Your task to perform on an android device: Add "alienware aurora" to the cart on amazon, then select checkout. Image 0: 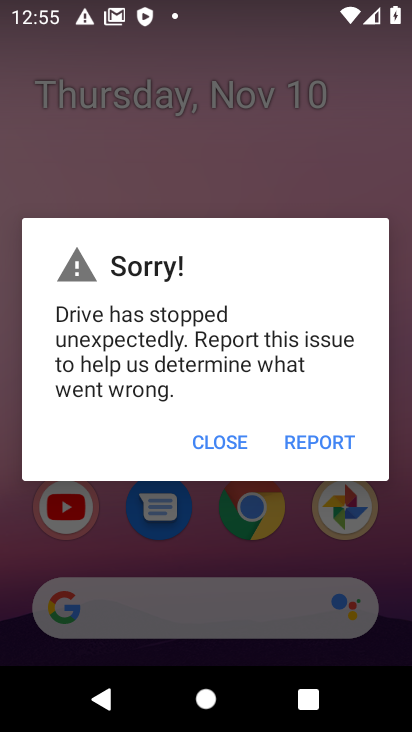
Step 0: click (237, 435)
Your task to perform on an android device: Add "alienware aurora" to the cart on amazon, then select checkout. Image 1: 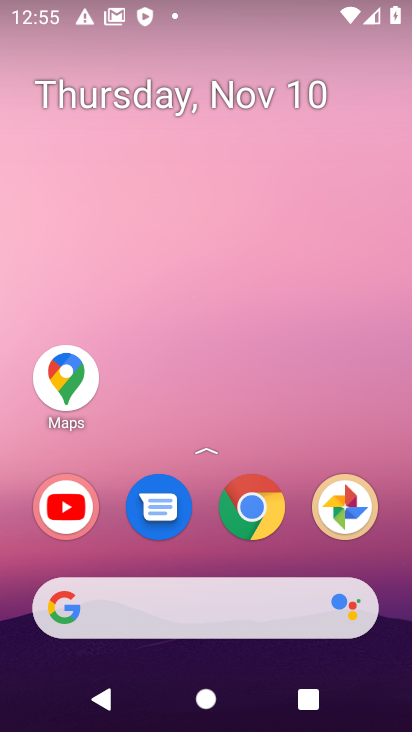
Step 1: click (254, 511)
Your task to perform on an android device: Add "alienware aurora" to the cart on amazon, then select checkout. Image 2: 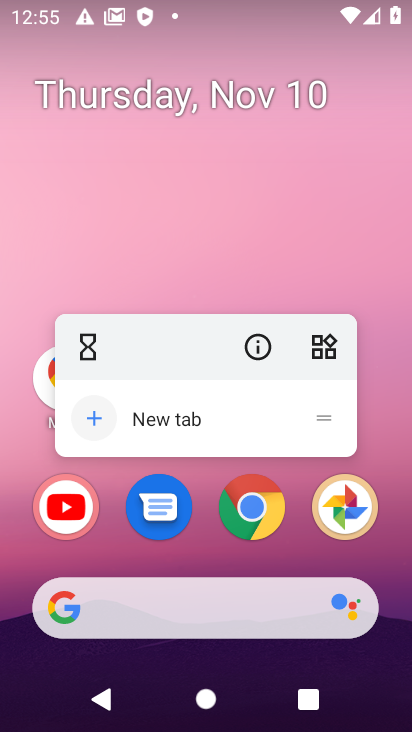
Step 2: click (254, 511)
Your task to perform on an android device: Add "alienware aurora" to the cart on amazon, then select checkout. Image 3: 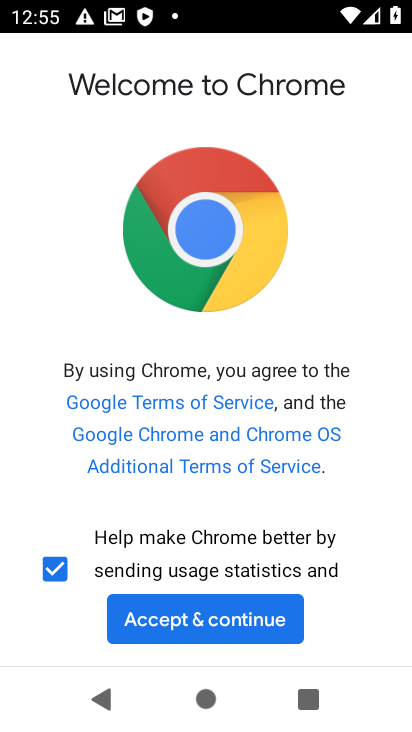
Step 3: click (233, 602)
Your task to perform on an android device: Add "alienware aurora" to the cart on amazon, then select checkout. Image 4: 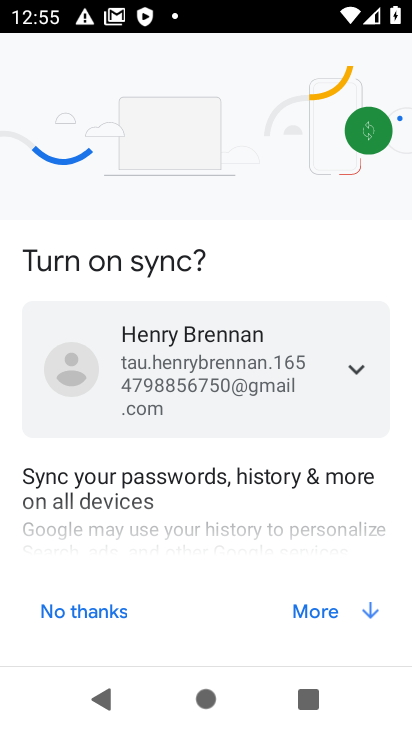
Step 4: click (351, 609)
Your task to perform on an android device: Add "alienware aurora" to the cart on amazon, then select checkout. Image 5: 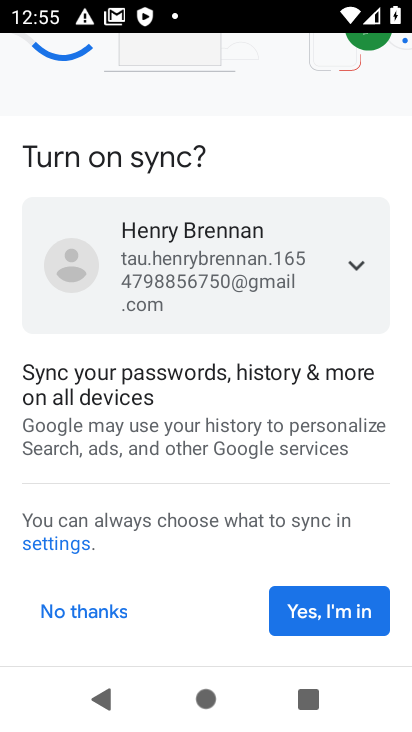
Step 5: click (351, 609)
Your task to perform on an android device: Add "alienware aurora" to the cart on amazon, then select checkout. Image 6: 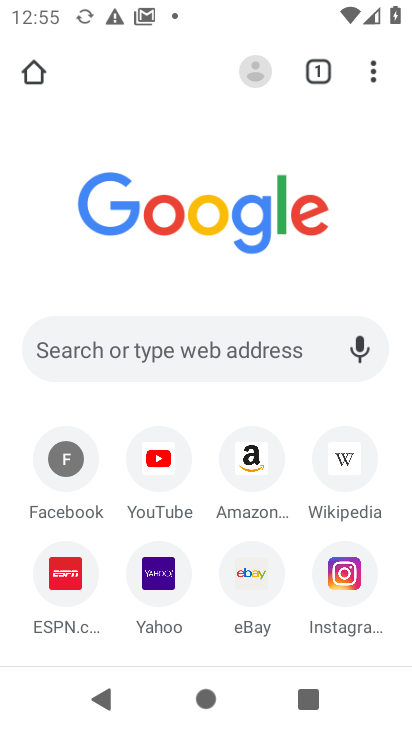
Step 6: click (134, 324)
Your task to perform on an android device: Add "alienware aurora" to the cart on amazon, then select checkout. Image 7: 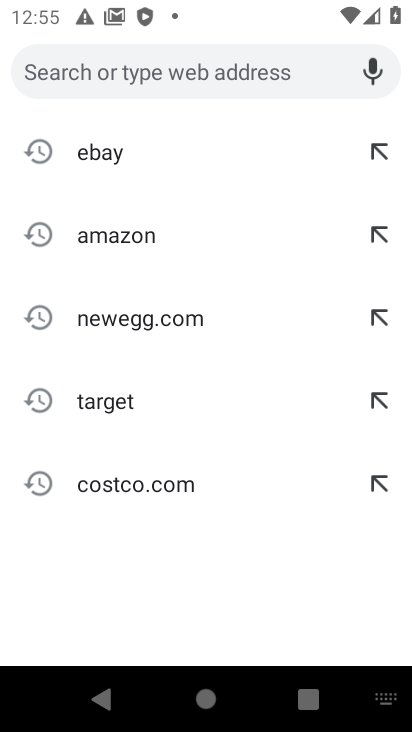
Step 7: click (74, 232)
Your task to perform on an android device: Add "alienware aurora" to the cart on amazon, then select checkout. Image 8: 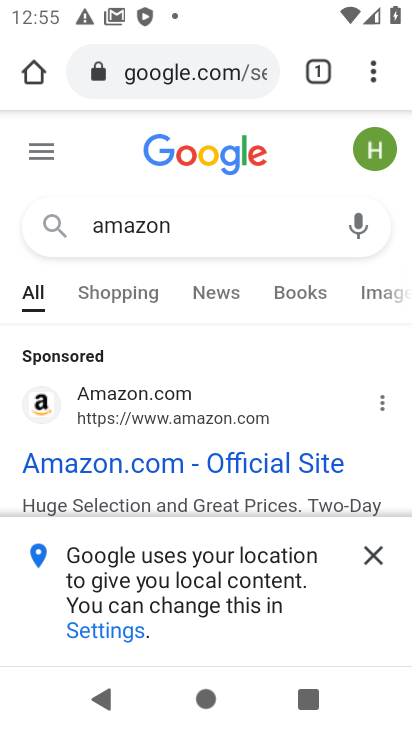
Step 8: click (103, 457)
Your task to perform on an android device: Add "alienware aurora" to the cart on amazon, then select checkout. Image 9: 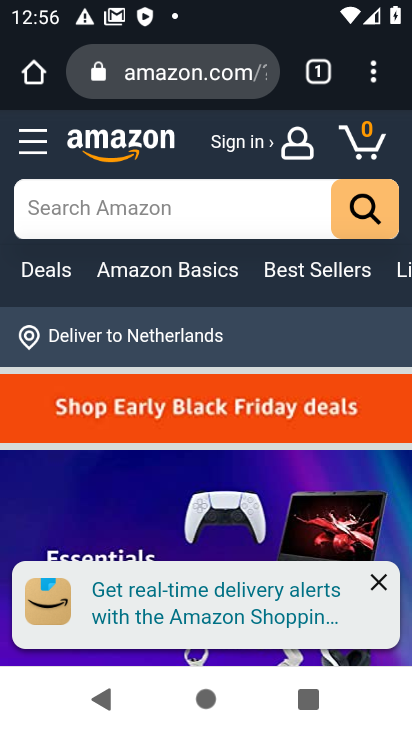
Step 9: click (149, 217)
Your task to perform on an android device: Add "alienware aurora" to the cart on amazon, then select checkout. Image 10: 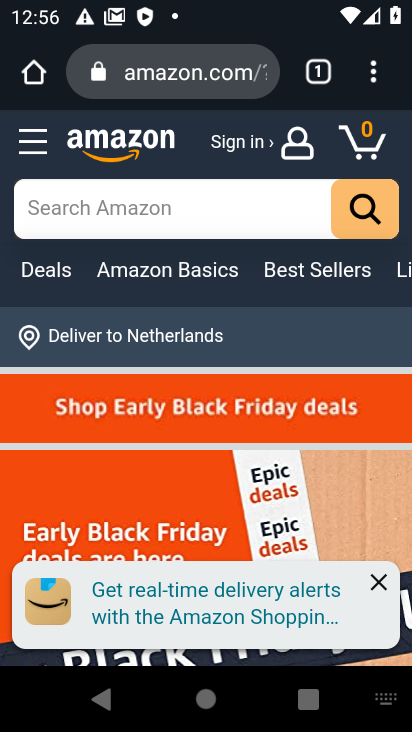
Step 10: type "alienware aurora"
Your task to perform on an android device: Add "alienware aurora" to the cart on amazon, then select checkout. Image 11: 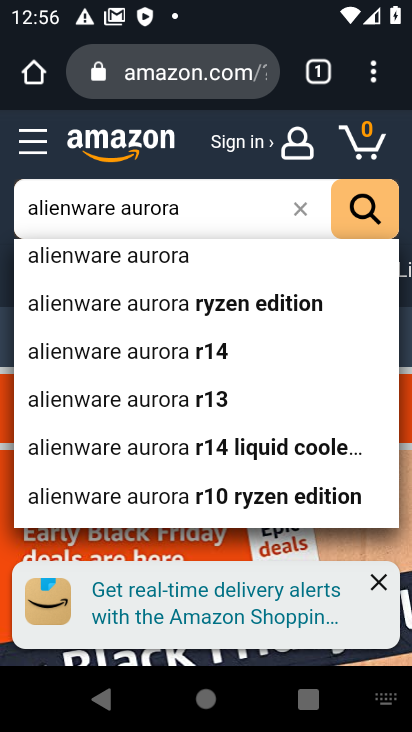
Step 11: click (169, 256)
Your task to perform on an android device: Add "alienware aurora" to the cart on amazon, then select checkout. Image 12: 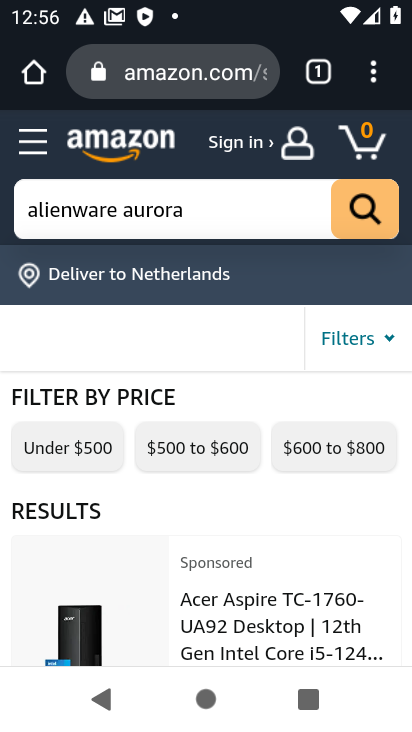
Step 12: drag from (284, 618) to (319, 309)
Your task to perform on an android device: Add "alienware aurora" to the cart on amazon, then select checkout. Image 13: 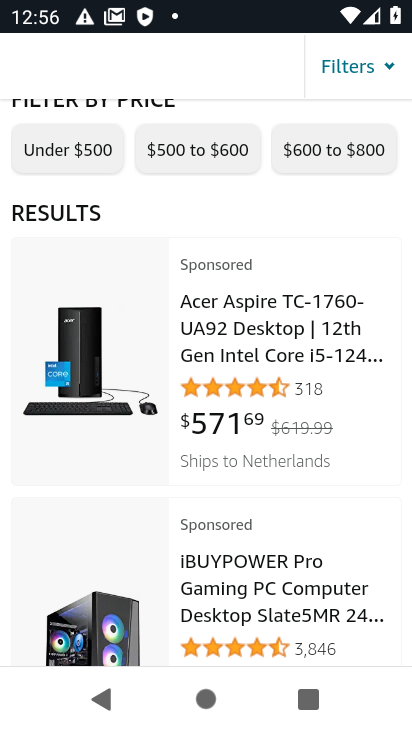
Step 13: drag from (266, 617) to (309, 304)
Your task to perform on an android device: Add "alienware aurora" to the cart on amazon, then select checkout. Image 14: 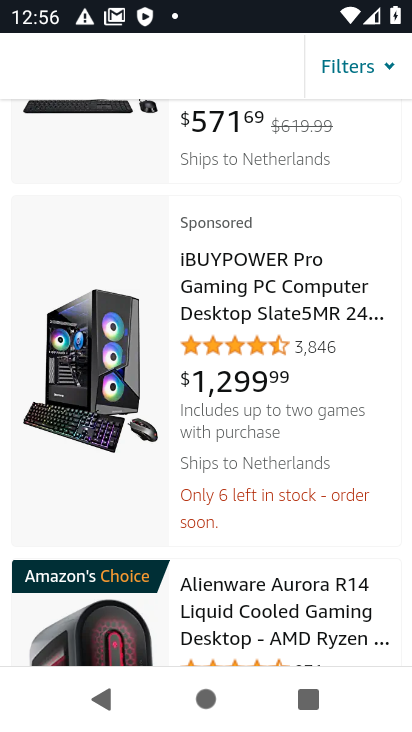
Step 14: click (311, 584)
Your task to perform on an android device: Add "alienware aurora" to the cart on amazon, then select checkout. Image 15: 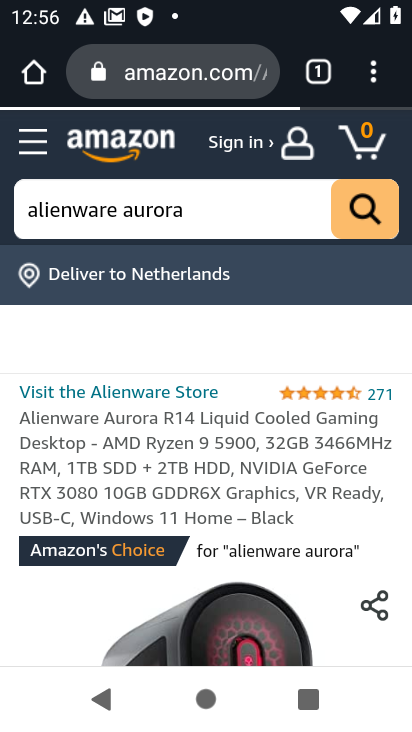
Step 15: click (344, 262)
Your task to perform on an android device: Add "alienware aurora" to the cart on amazon, then select checkout. Image 16: 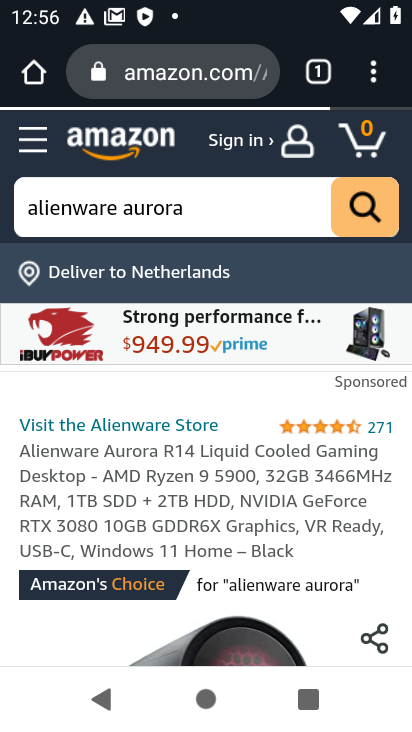
Step 16: drag from (227, 635) to (305, 337)
Your task to perform on an android device: Add "alienware aurora" to the cart on amazon, then select checkout. Image 17: 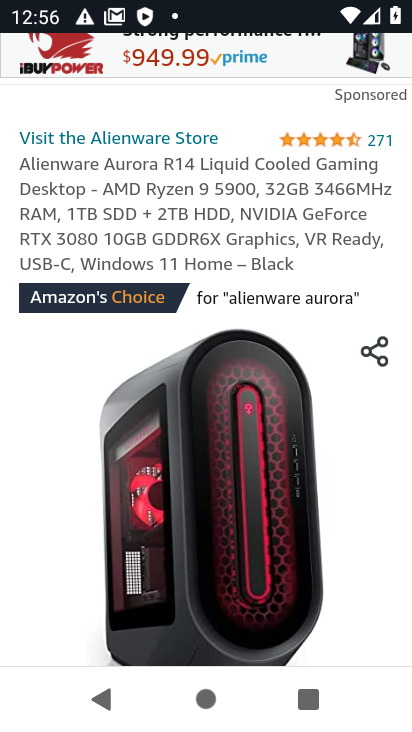
Step 17: drag from (276, 564) to (282, 432)
Your task to perform on an android device: Add "alienware aurora" to the cart on amazon, then select checkout. Image 18: 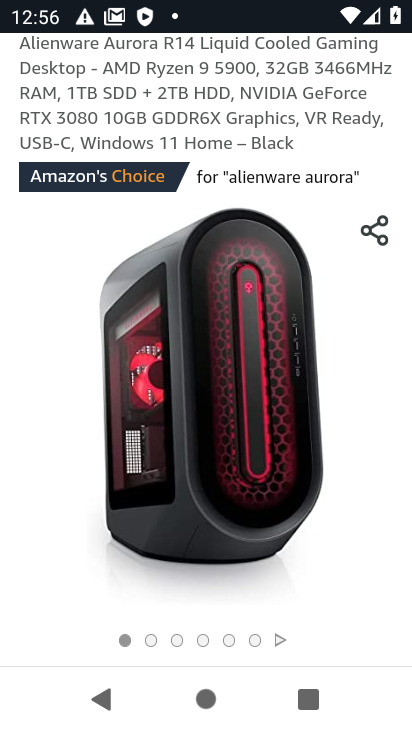
Step 18: drag from (256, 567) to (303, 361)
Your task to perform on an android device: Add "alienware aurora" to the cart on amazon, then select checkout. Image 19: 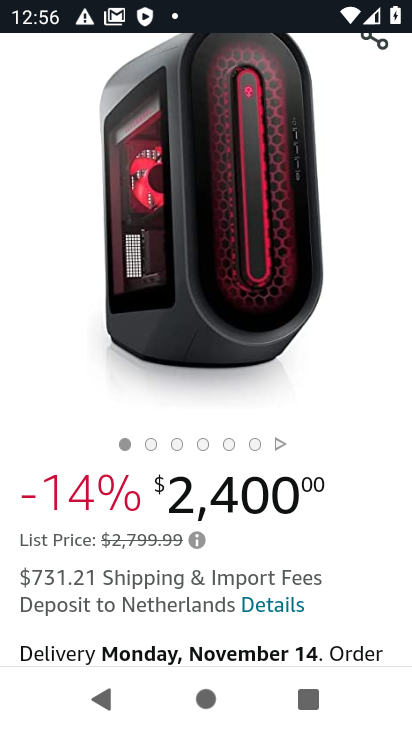
Step 19: drag from (296, 569) to (314, 223)
Your task to perform on an android device: Add "alienware aurora" to the cart on amazon, then select checkout. Image 20: 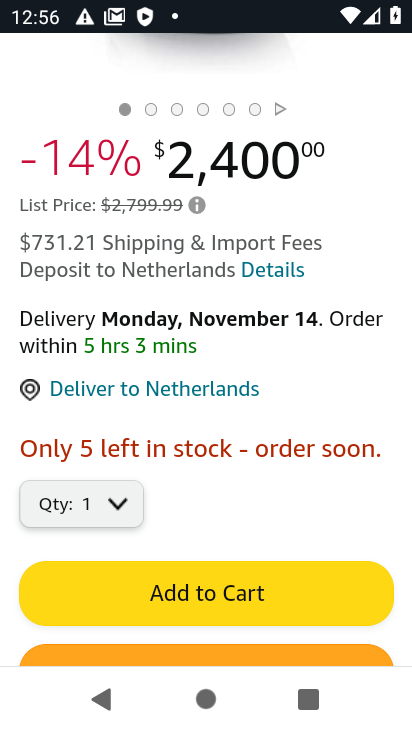
Step 20: click (233, 585)
Your task to perform on an android device: Add "alienware aurora" to the cart on amazon, then select checkout. Image 21: 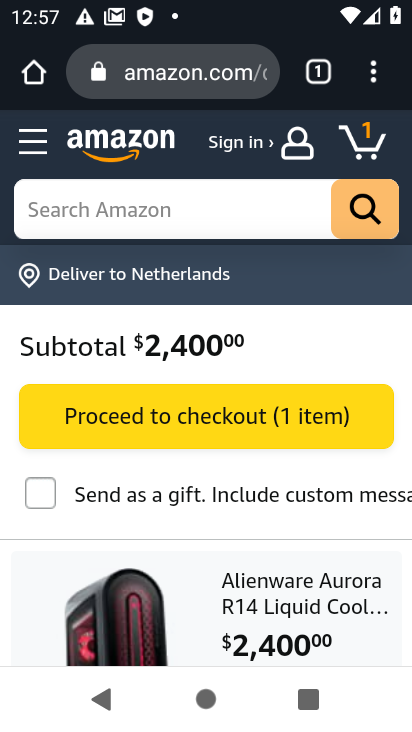
Step 21: click (218, 421)
Your task to perform on an android device: Add "alienware aurora" to the cart on amazon, then select checkout. Image 22: 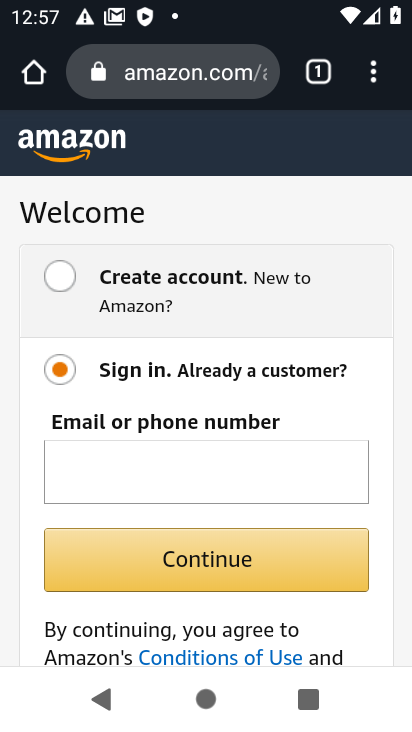
Step 22: task complete